Your task to perform on an android device: empty trash in the gmail app Image 0: 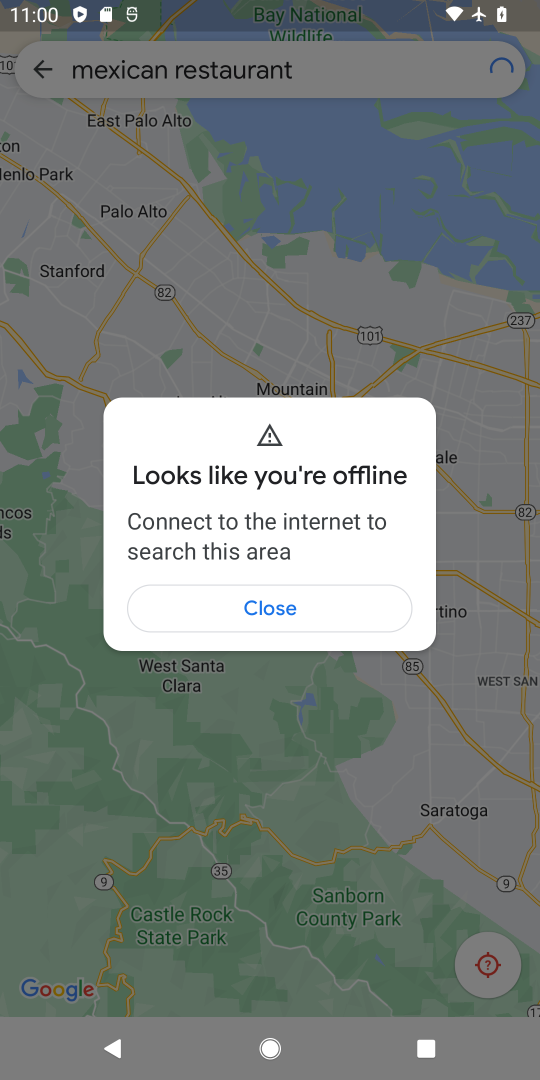
Step 0: press home button
Your task to perform on an android device: empty trash in the gmail app Image 1: 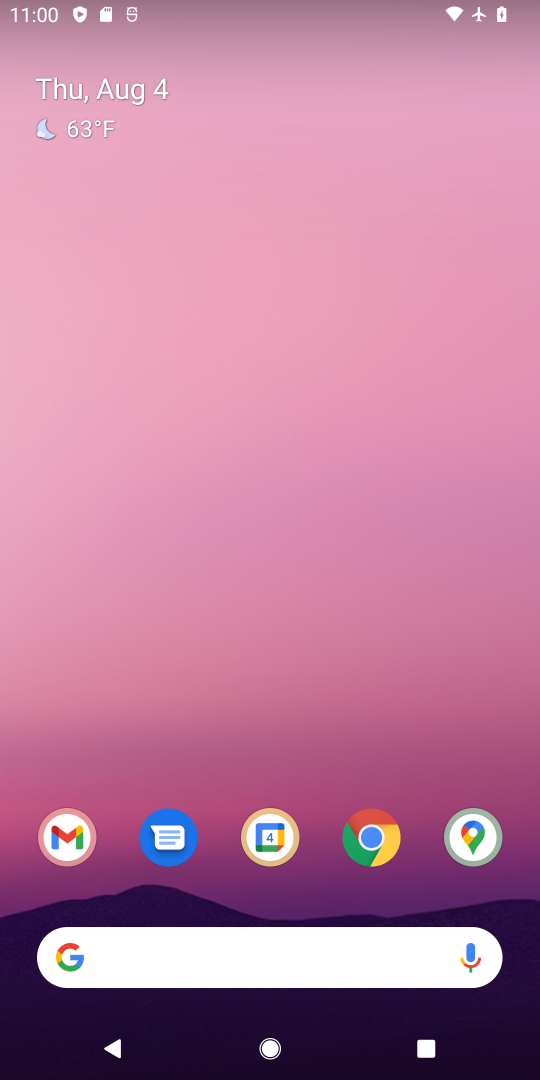
Step 1: drag from (301, 891) to (402, 146)
Your task to perform on an android device: empty trash in the gmail app Image 2: 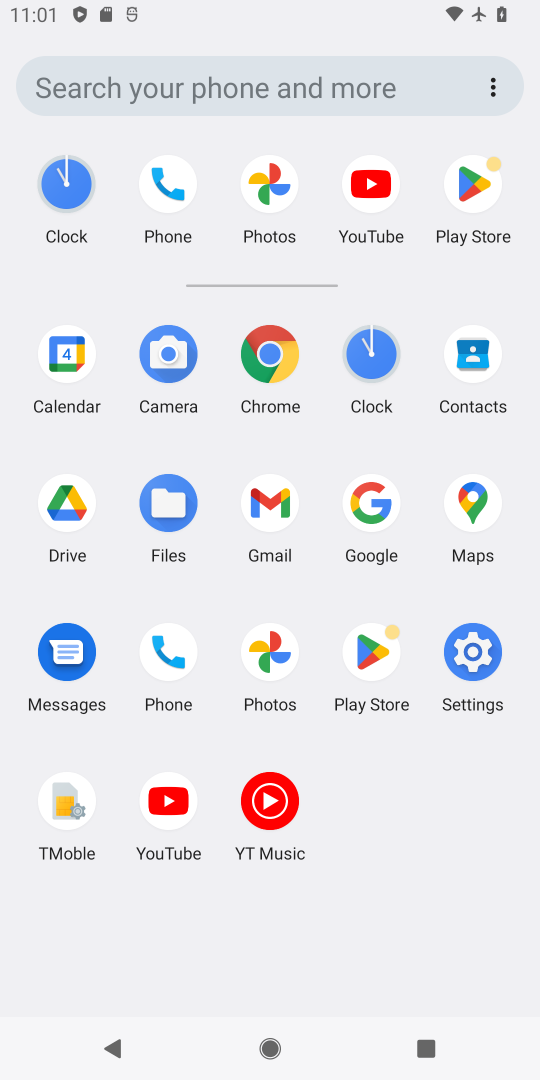
Step 2: click (270, 502)
Your task to perform on an android device: empty trash in the gmail app Image 3: 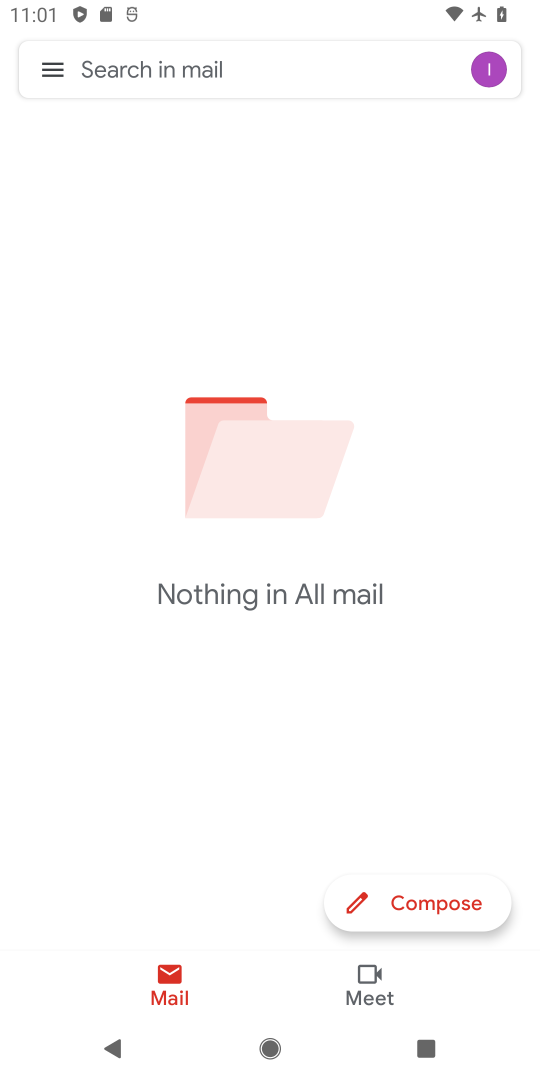
Step 3: click (44, 69)
Your task to perform on an android device: empty trash in the gmail app Image 4: 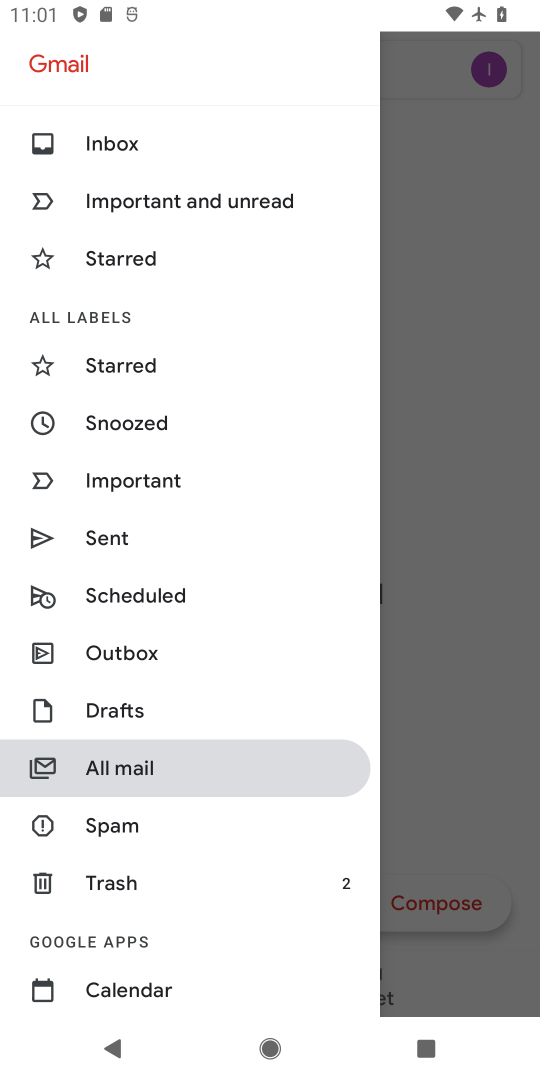
Step 4: click (141, 881)
Your task to perform on an android device: empty trash in the gmail app Image 5: 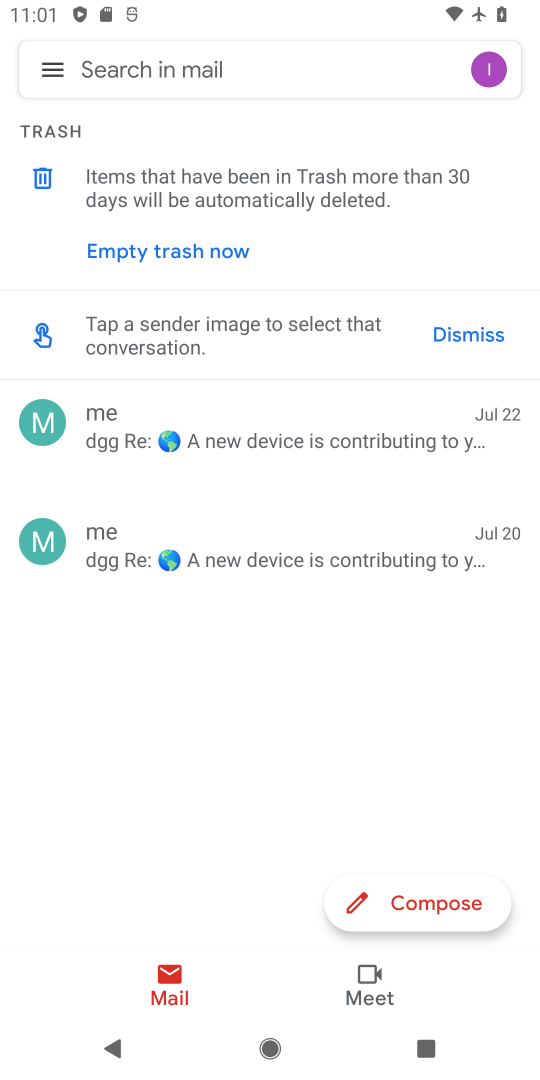
Step 5: click (170, 254)
Your task to perform on an android device: empty trash in the gmail app Image 6: 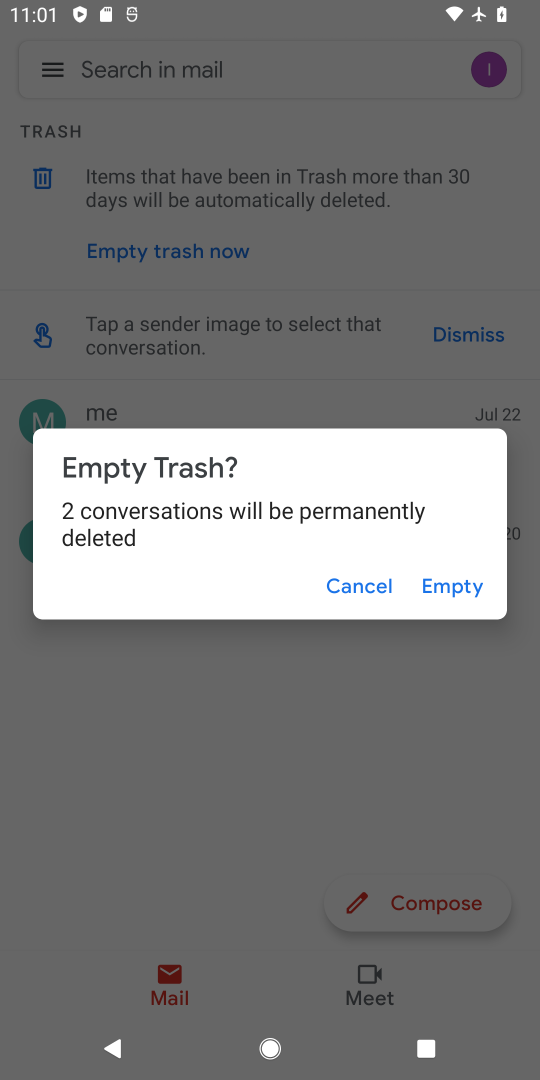
Step 6: click (458, 585)
Your task to perform on an android device: empty trash in the gmail app Image 7: 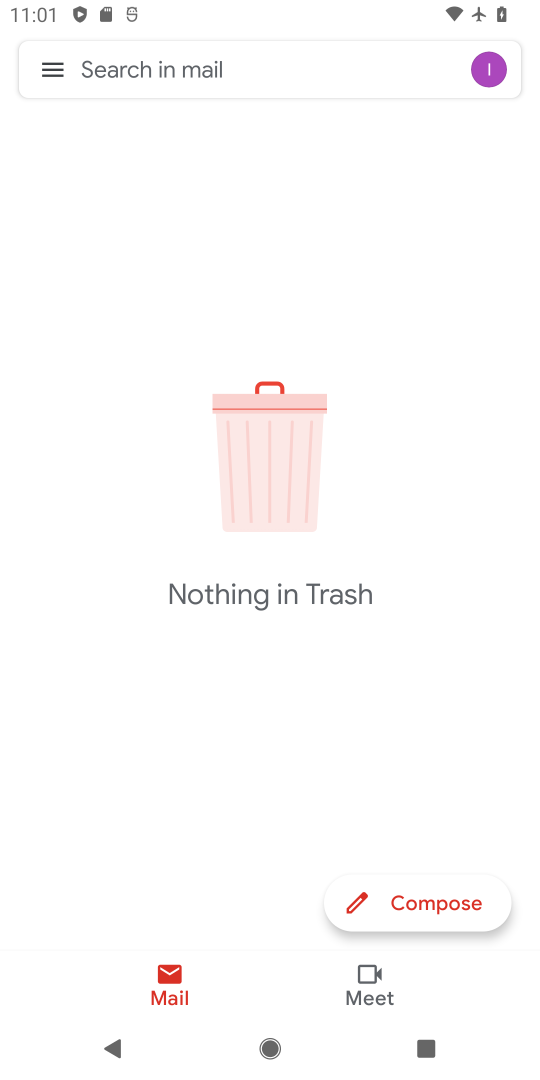
Step 7: task complete